Your task to perform on an android device: What is the recent news? Image 0: 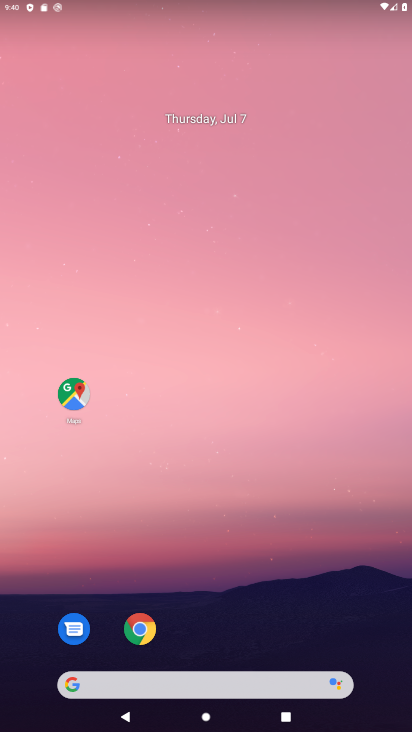
Step 0: drag from (221, 599) to (206, 43)
Your task to perform on an android device: What is the recent news? Image 1: 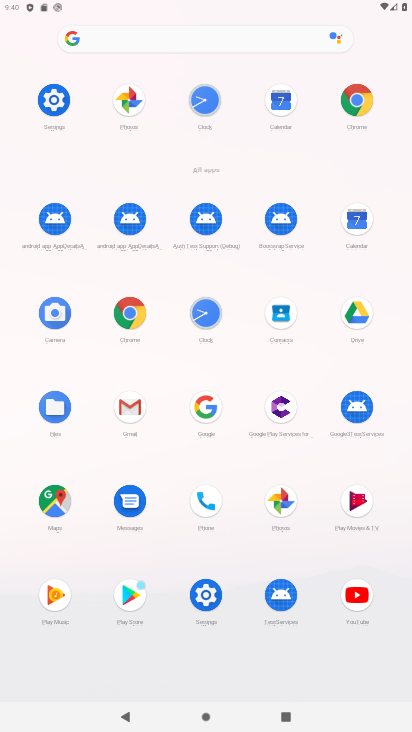
Step 1: click (208, 35)
Your task to perform on an android device: What is the recent news? Image 2: 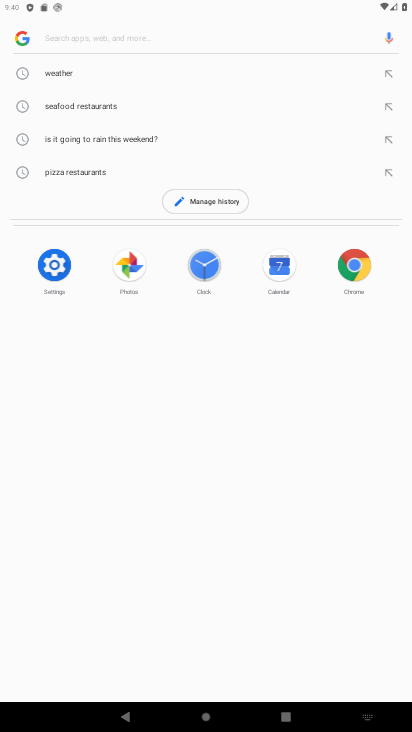
Step 2: type "what is the recent news?"
Your task to perform on an android device: What is the recent news? Image 3: 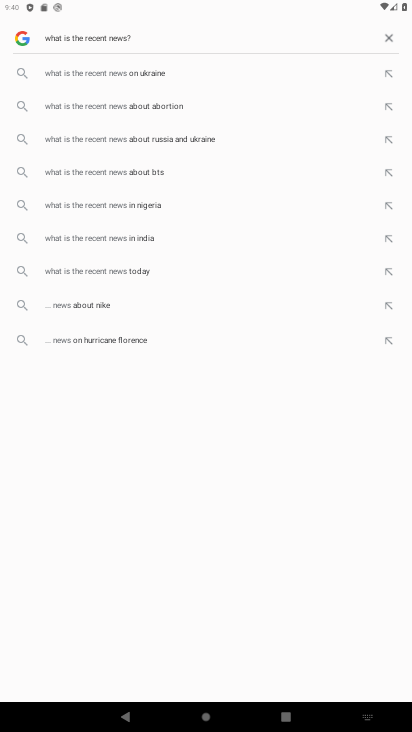
Step 3: click (93, 264)
Your task to perform on an android device: What is the recent news? Image 4: 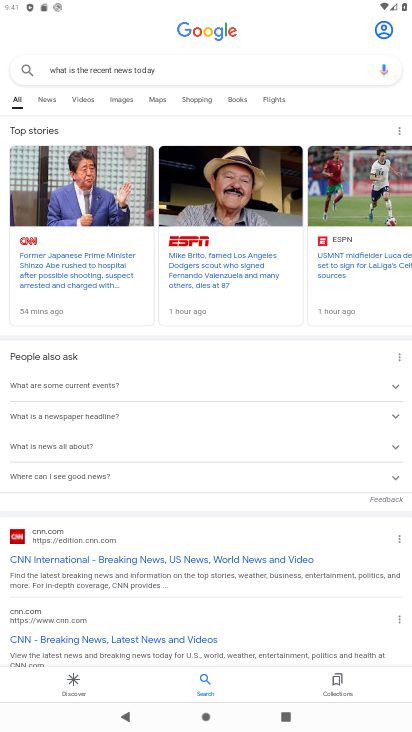
Step 4: click (47, 102)
Your task to perform on an android device: What is the recent news? Image 5: 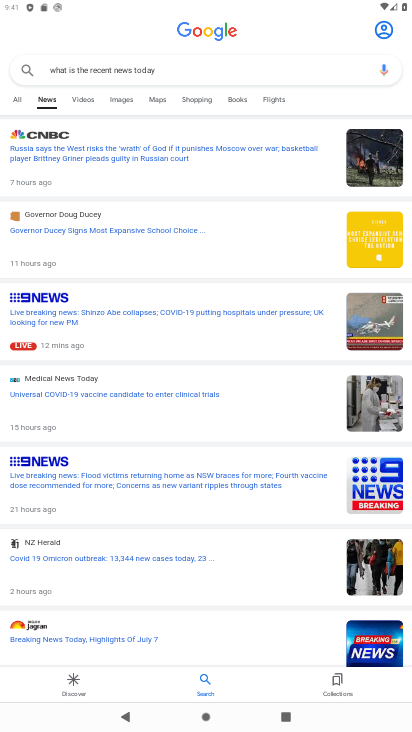
Step 5: task complete